Your task to perform on an android device: turn off notifications in google photos Image 0: 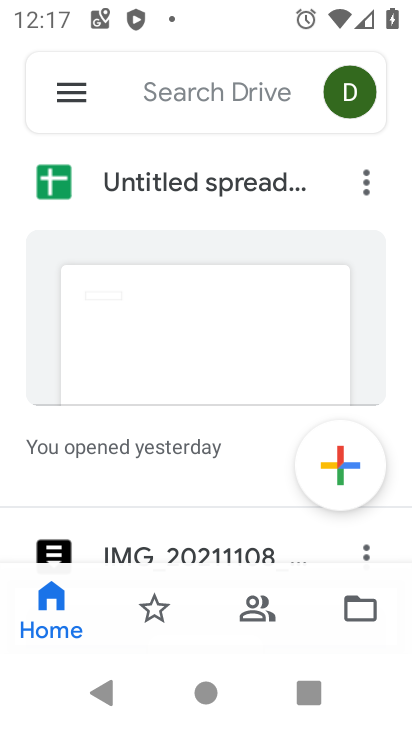
Step 0: press home button
Your task to perform on an android device: turn off notifications in google photos Image 1: 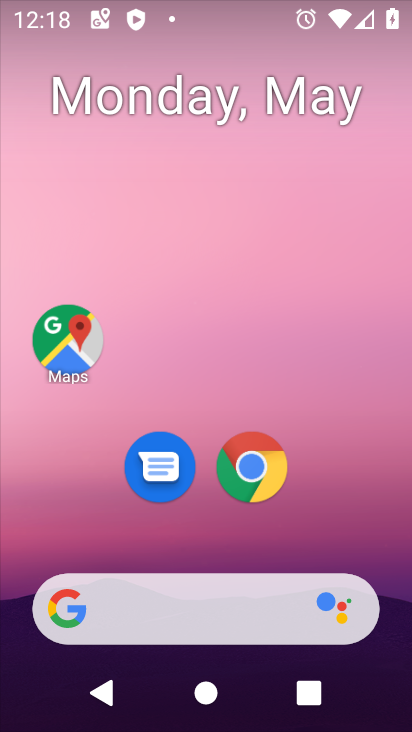
Step 1: drag from (388, 639) to (328, 102)
Your task to perform on an android device: turn off notifications in google photos Image 2: 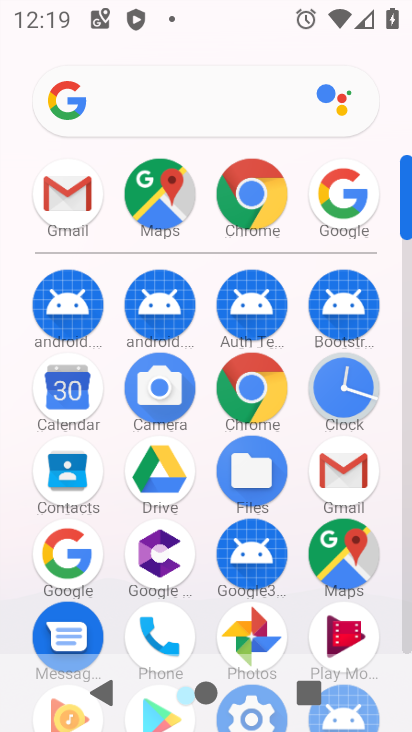
Step 2: click (267, 617)
Your task to perform on an android device: turn off notifications in google photos Image 3: 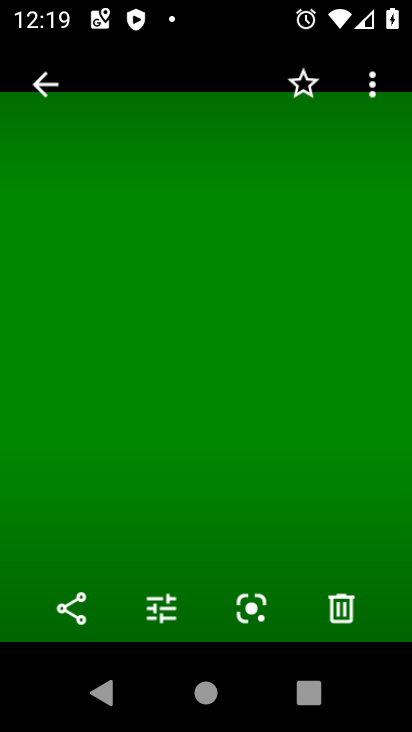
Step 3: press back button
Your task to perform on an android device: turn off notifications in google photos Image 4: 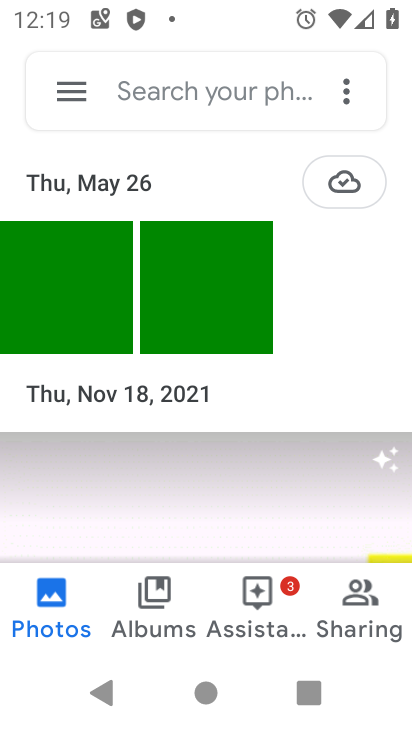
Step 4: click (76, 85)
Your task to perform on an android device: turn off notifications in google photos Image 5: 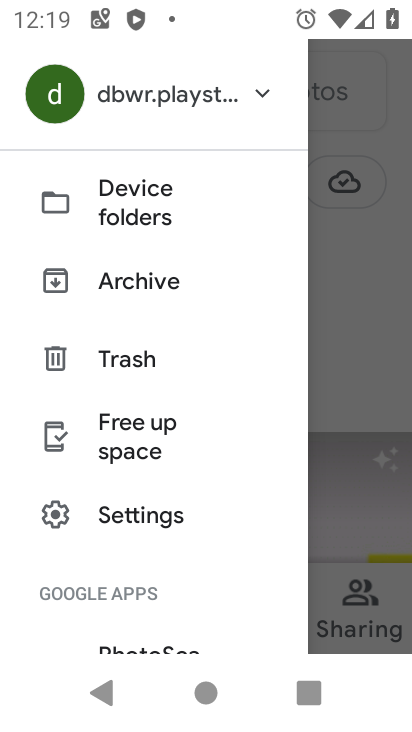
Step 5: click (162, 524)
Your task to perform on an android device: turn off notifications in google photos Image 6: 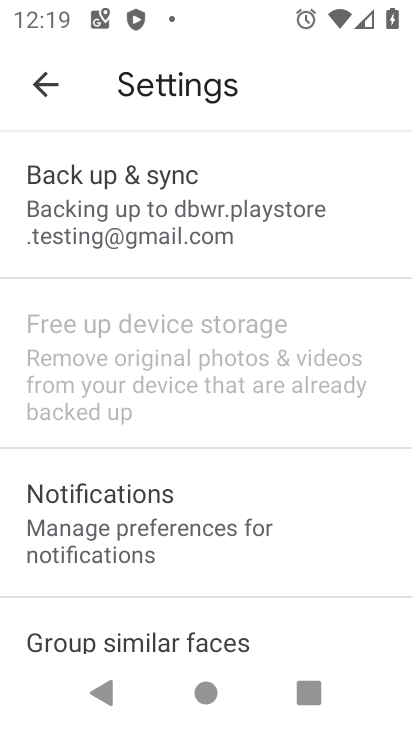
Step 6: click (276, 522)
Your task to perform on an android device: turn off notifications in google photos Image 7: 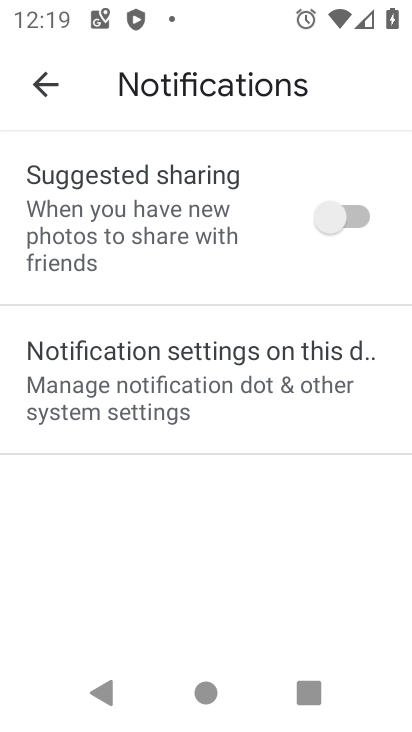
Step 7: task complete